Your task to perform on an android device: Search for Italian restaurants on Maps Image 0: 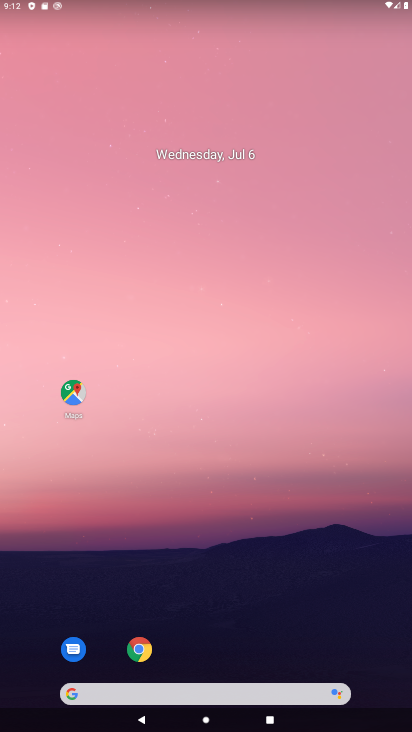
Step 0: drag from (246, 637) to (176, 94)
Your task to perform on an android device: Search for Italian restaurants on Maps Image 1: 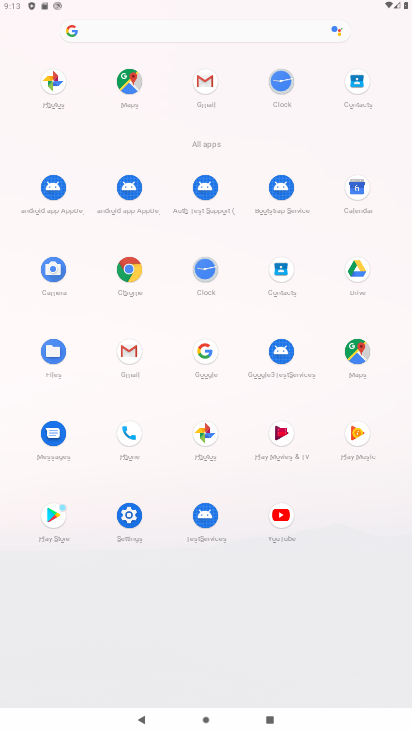
Step 1: click (359, 353)
Your task to perform on an android device: Search for Italian restaurants on Maps Image 2: 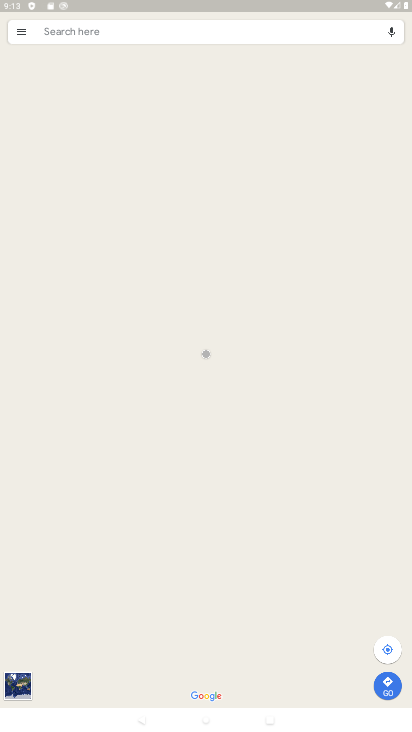
Step 2: click (191, 35)
Your task to perform on an android device: Search for Italian restaurants on Maps Image 3: 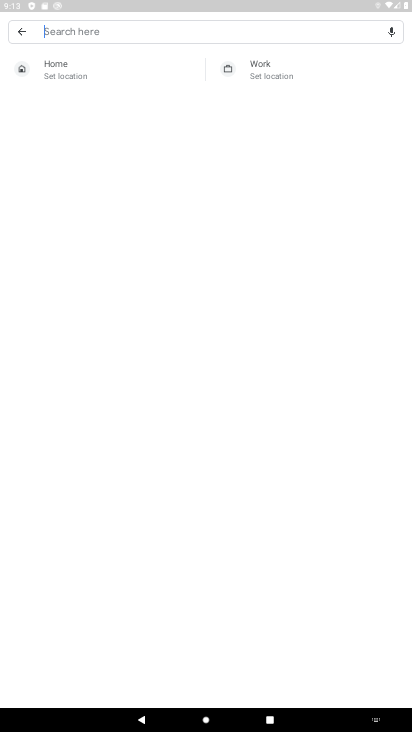
Step 3: type "Italian restaurants"
Your task to perform on an android device: Search for Italian restaurants on Maps Image 4: 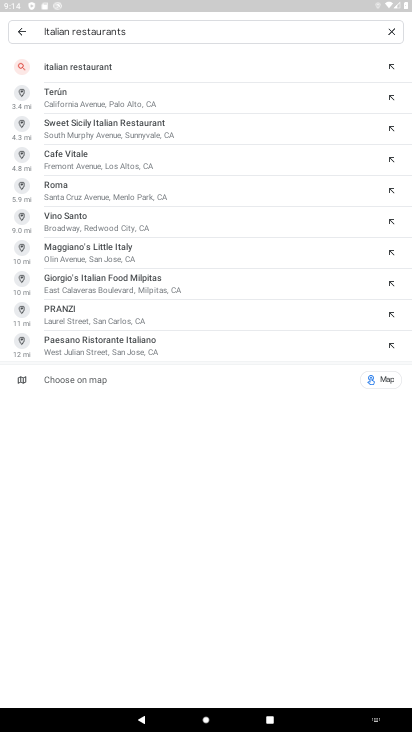
Step 4: click (102, 61)
Your task to perform on an android device: Search for Italian restaurants on Maps Image 5: 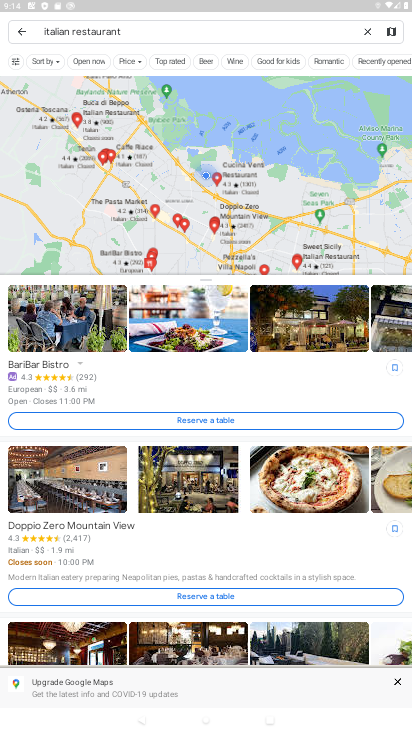
Step 5: click (121, 523)
Your task to perform on an android device: Search for Italian restaurants on Maps Image 6: 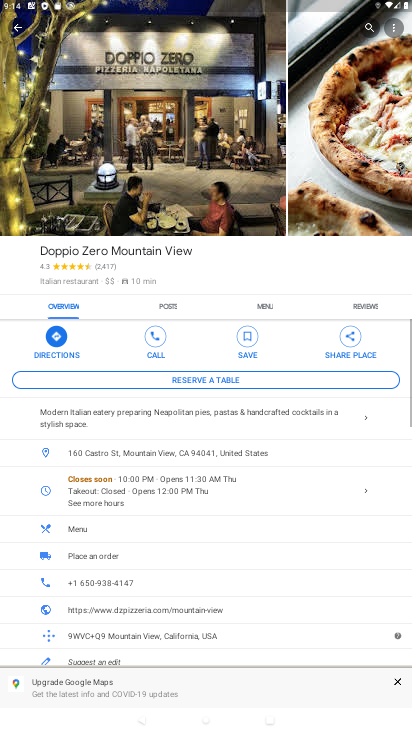
Step 6: task complete